Your task to perform on an android device: change keyboard looks Image 0: 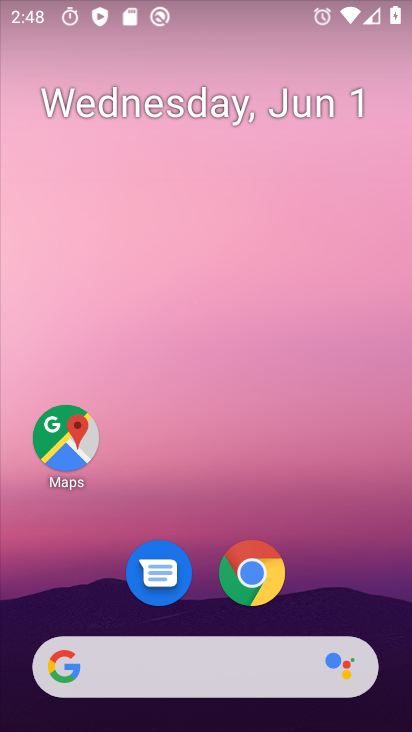
Step 0: drag from (202, 616) to (232, 247)
Your task to perform on an android device: change keyboard looks Image 1: 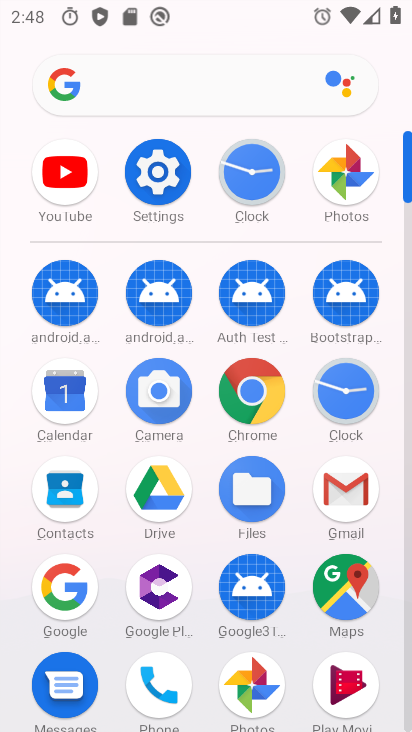
Step 1: click (186, 179)
Your task to perform on an android device: change keyboard looks Image 2: 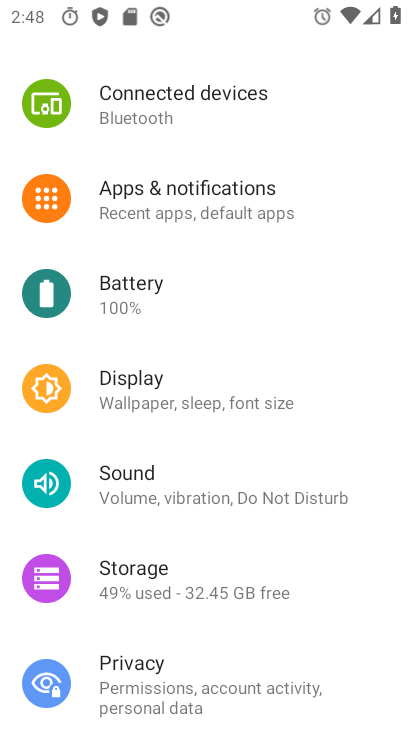
Step 2: drag from (241, 618) to (278, 312)
Your task to perform on an android device: change keyboard looks Image 3: 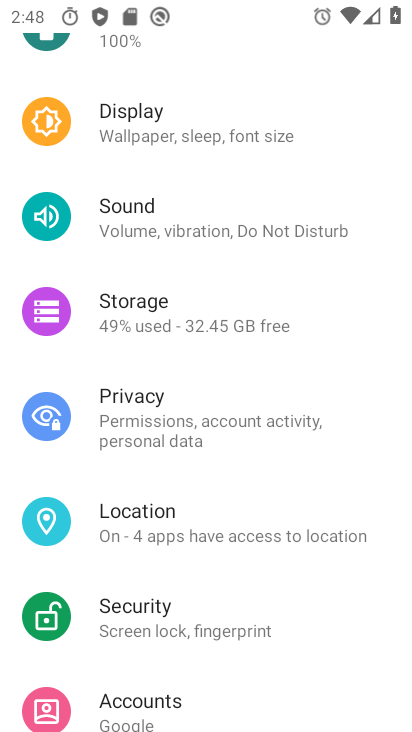
Step 3: drag from (219, 618) to (229, 216)
Your task to perform on an android device: change keyboard looks Image 4: 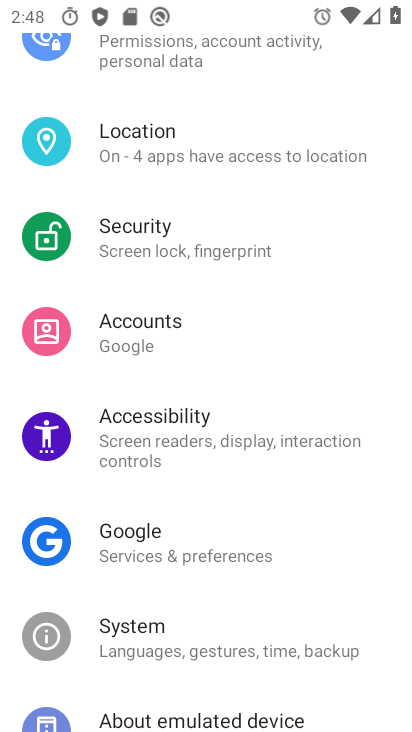
Step 4: click (226, 630)
Your task to perform on an android device: change keyboard looks Image 5: 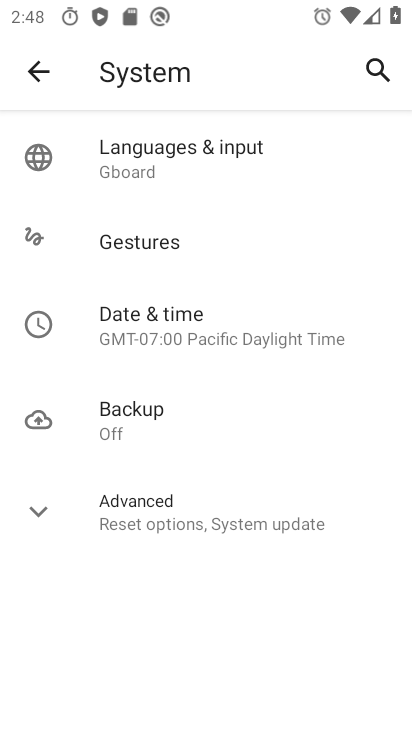
Step 5: click (200, 167)
Your task to perform on an android device: change keyboard looks Image 6: 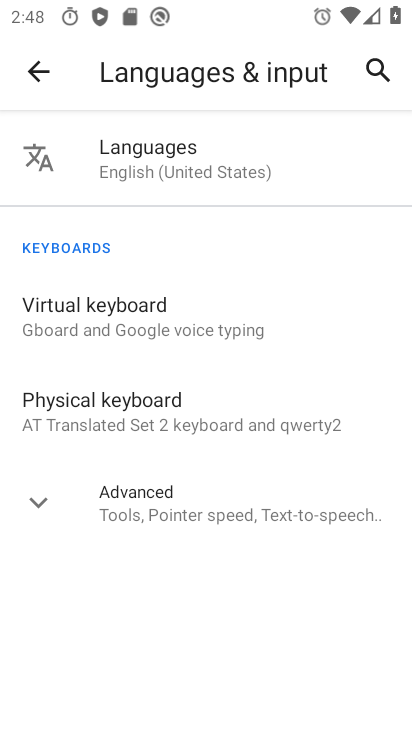
Step 6: click (183, 325)
Your task to perform on an android device: change keyboard looks Image 7: 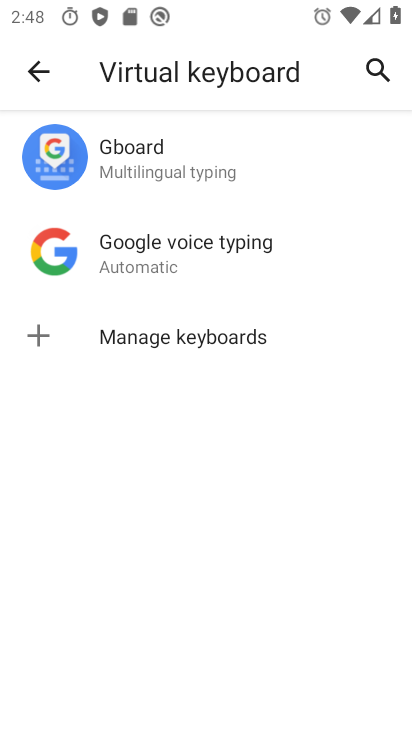
Step 7: click (180, 174)
Your task to perform on an android device: change keyboard looks Image 8: 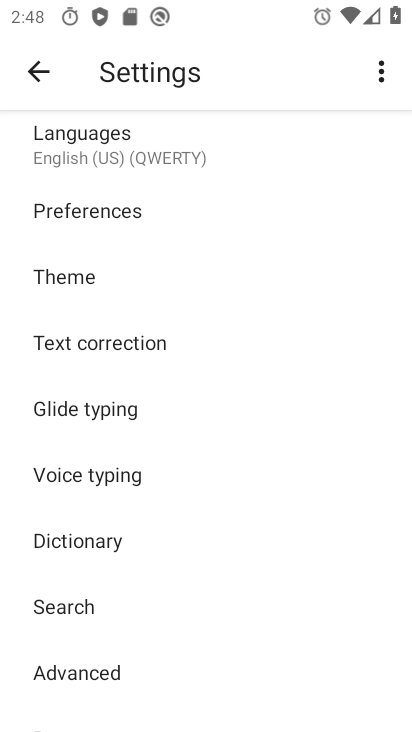
Step 8: click (178, 268)
Your task to perform on an android device: change keyboard looks Image 9: 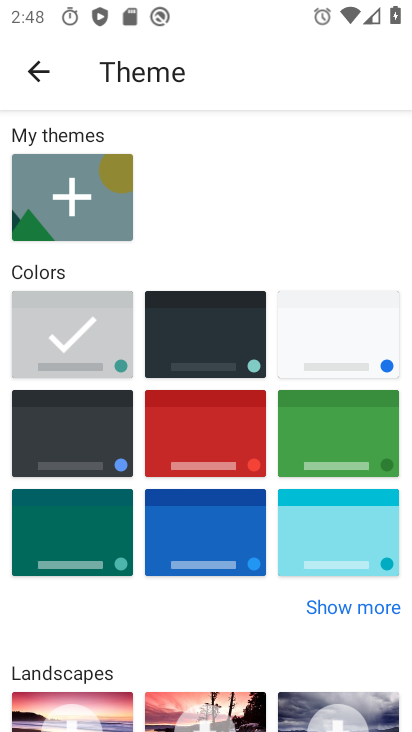
Step 9: click (331, 362)
Your task to perform on an android device: change keyboard looks Image 10: 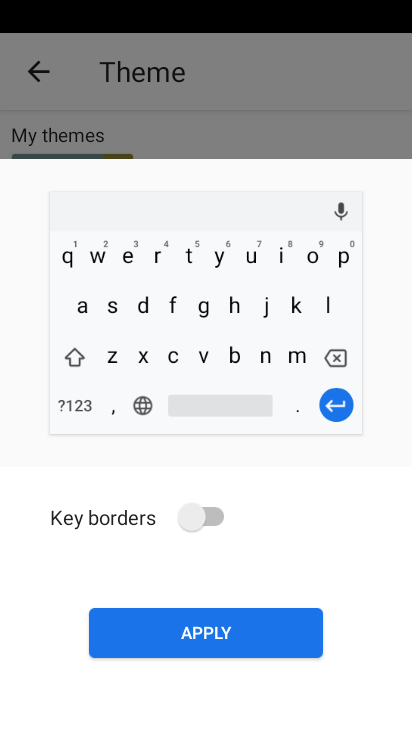
Step 10: click (312, 621)
Your task to perform on an android device: change keyboard looks Image 11: 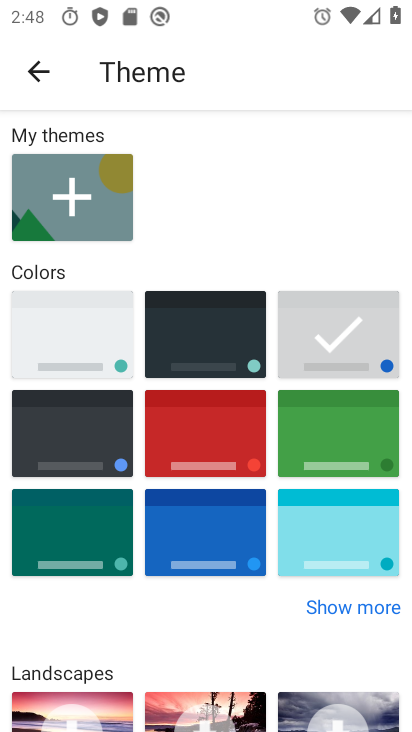
Step 11: task complete